Your task to perform on an android device: Play the last video I watched on Youtube Image 0: 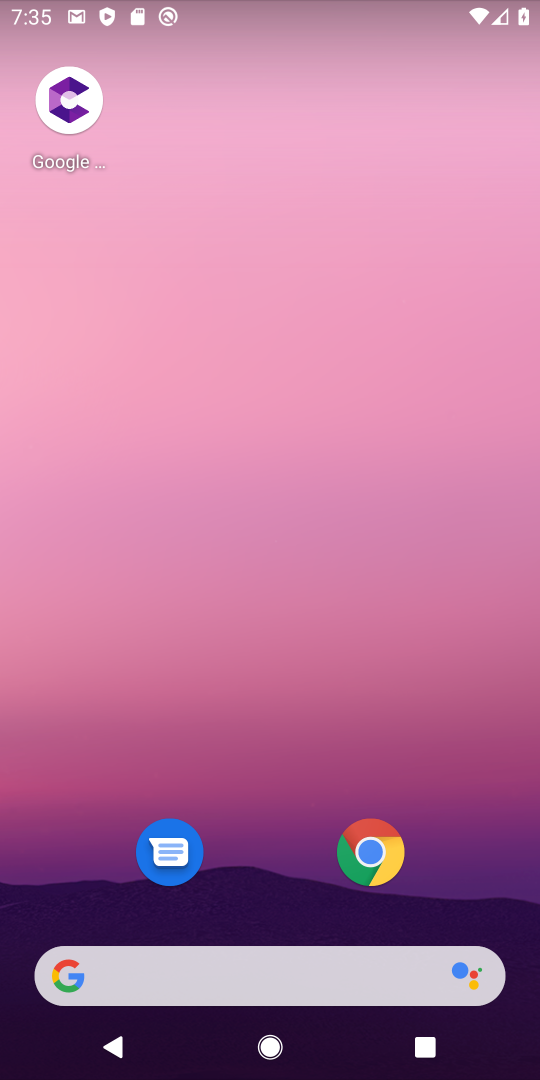
Step 0: drag from (327, 972) to (394, 293)
Your task to perform on an android device: Play the last video I watched on Youtube Image 1: 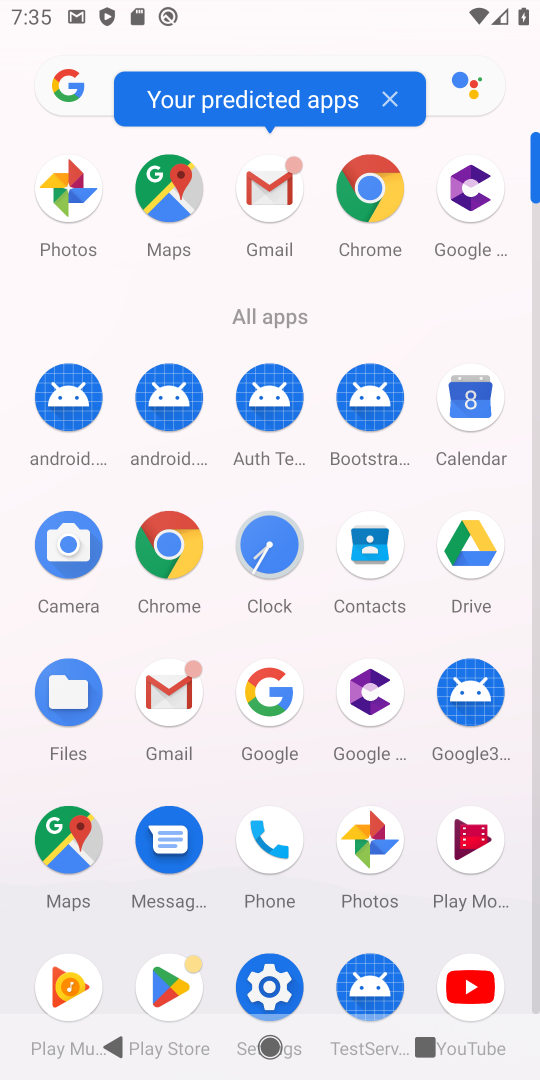
Step 1: click (475, 982)
Your task to perform on an android device: Play the last video I watched on Youtube Image 2: 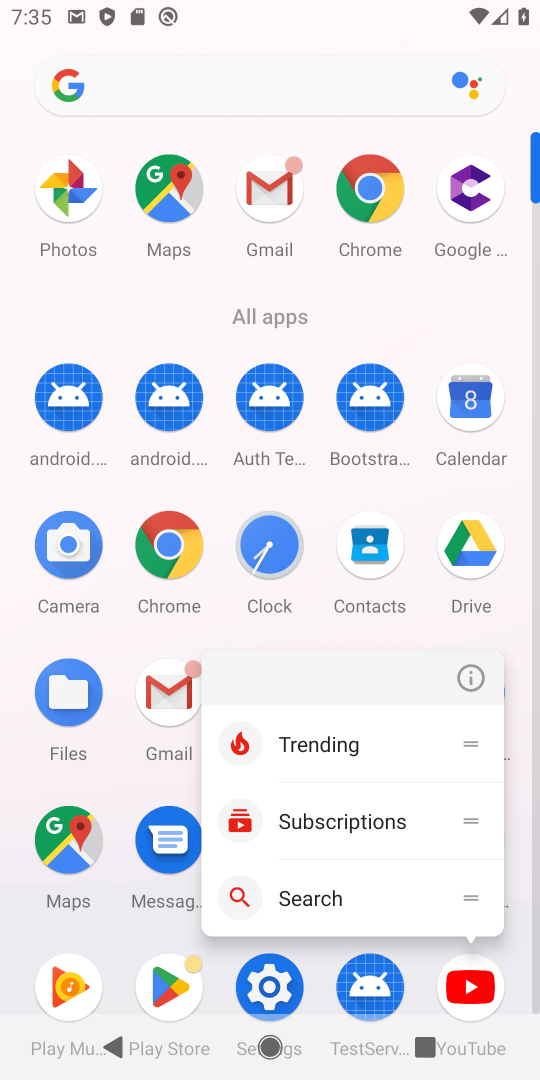
Step 2: click (464, 992)
Your task to perform on an android device: Play the last video I watched on Youtube Image 3: 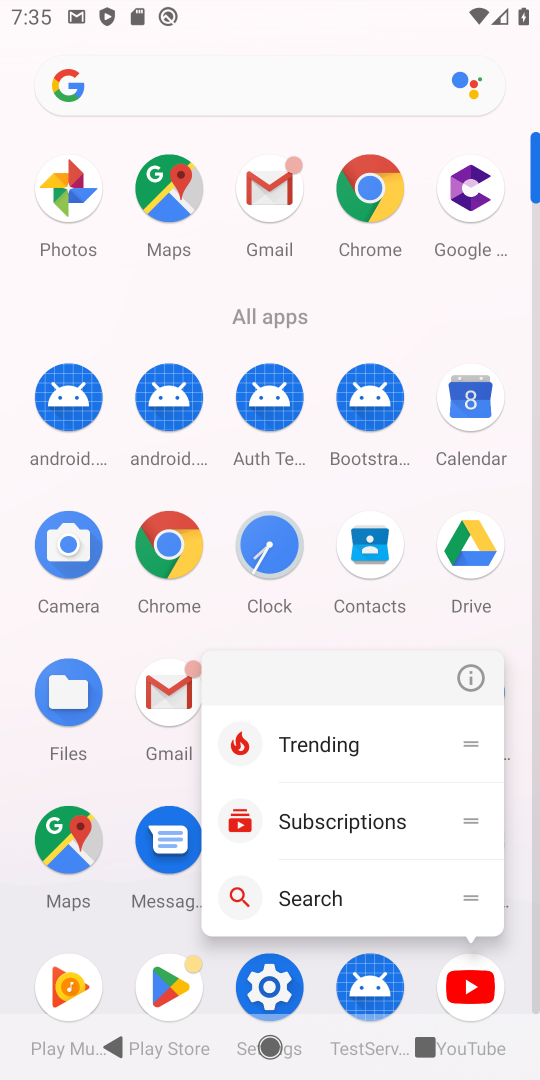
Step 3: click (464, 992)
Your task to perform on an android device: Play the last video I watched on Youtube Image 4: 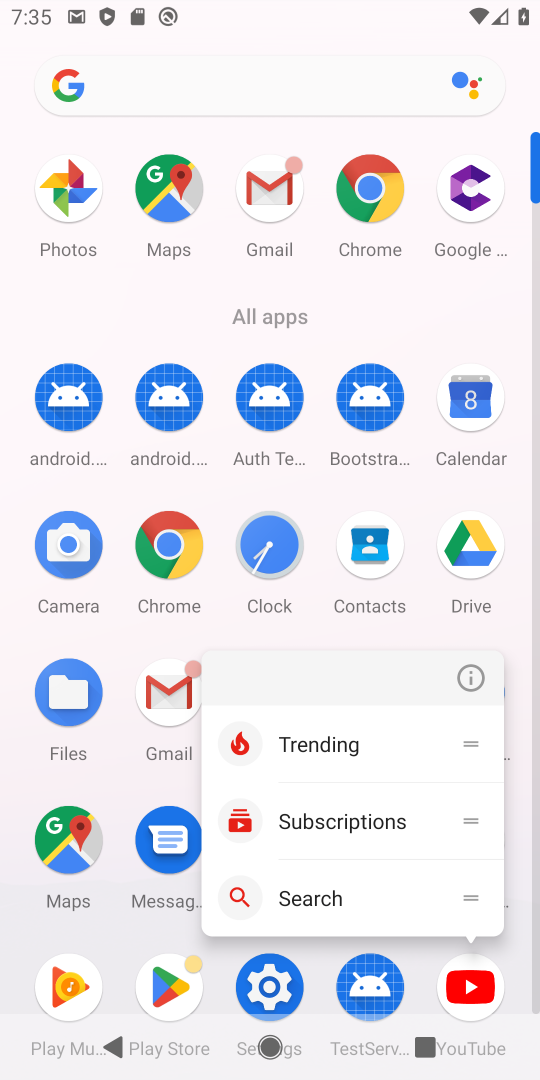
Step 4: click (479, 996)
Your task to perform on an android device: Play the last video I watched on Youtube Image 5: 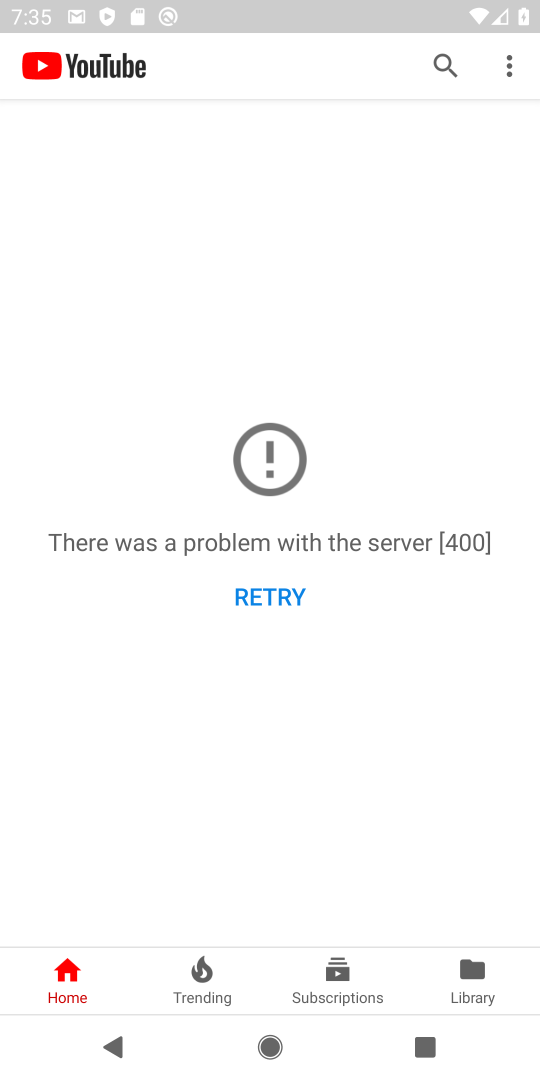
Step 5: click (447, 969)
Your task to perform on an android device: Play the last video I watched on Youtube Image 6: 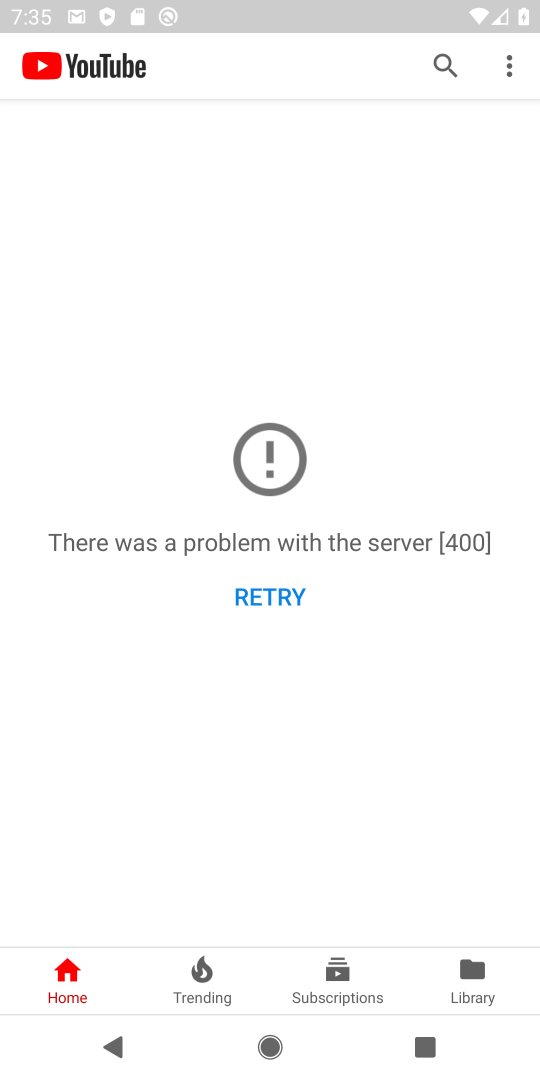
Step 6: click (289, 590)
Your task to perform on an android device: Play the last video I watched on Youtube Image 7: 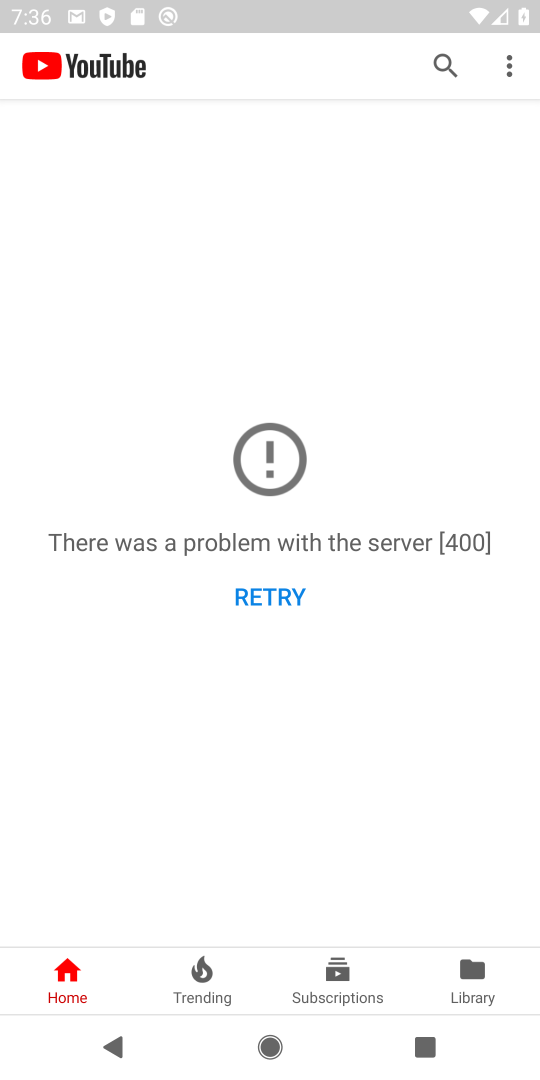
Step 7: click (462, 974)
Your task to perform on an android device: Play the last video I watched on Youtube Image 8: 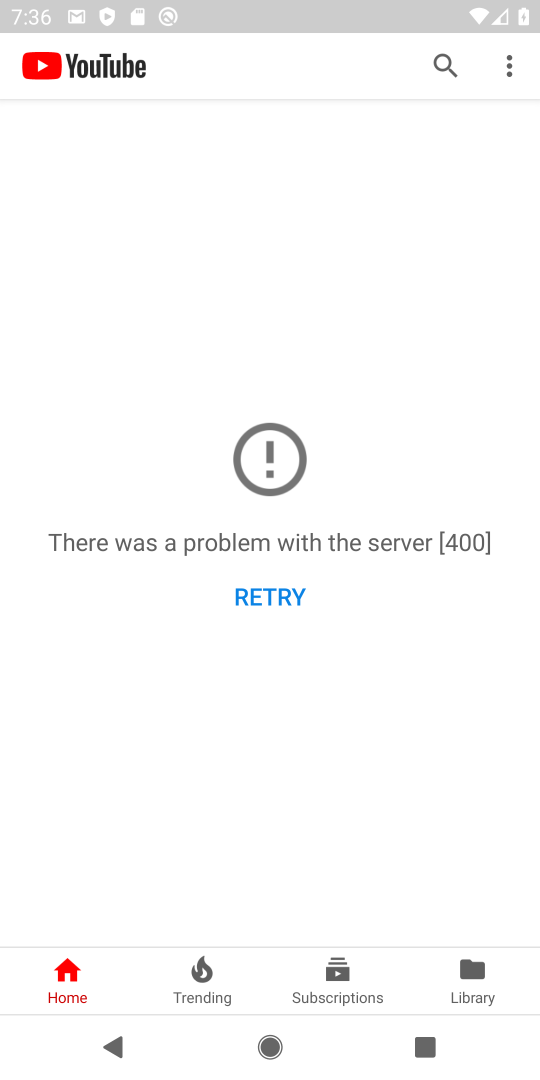
Step 8: task complete